Your task to perform on an android device: change the clock style Image 0: 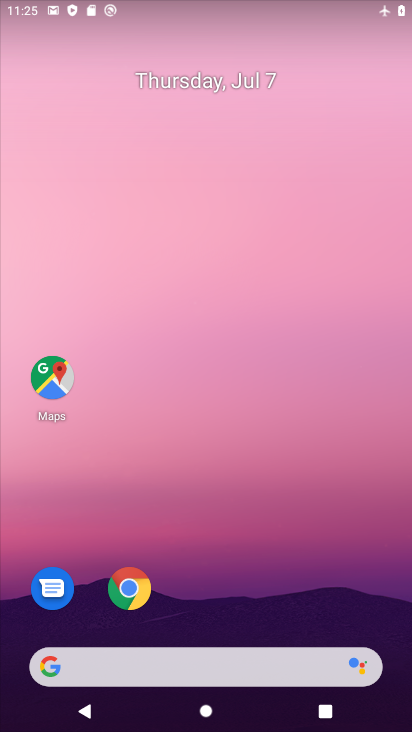
Step 0: press home button
Your task to perform on an android device: change the clock style Image 1: 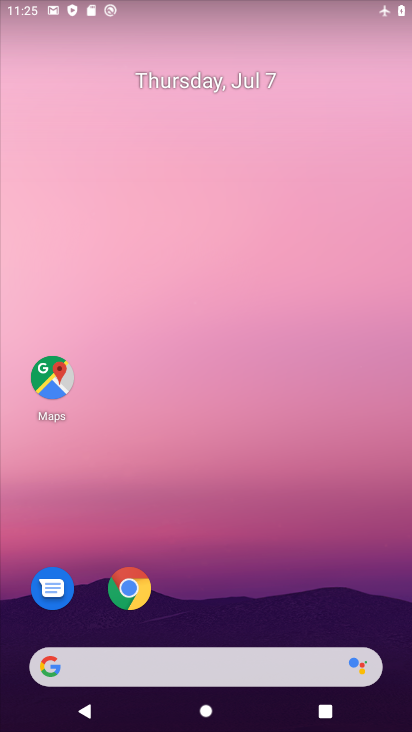
Step 1: drag from (267, 592) to (214, 125)
Your task to perform on an android device: change the clock style Image 2: 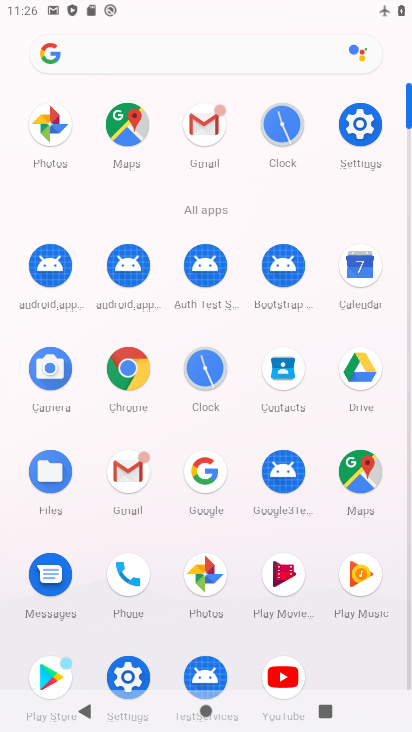
Step 2: click (218, 375)
Your task to perform on an android device: change the clock style Image 3: 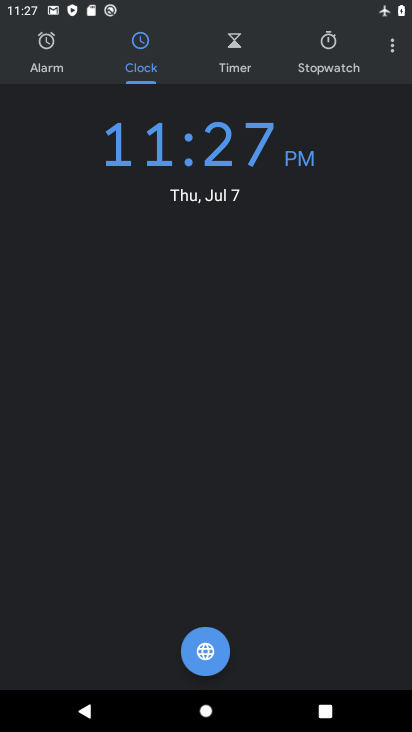
Step 3: click (391, 52)
Your task to perform on an android device: change the clock style Image 4: 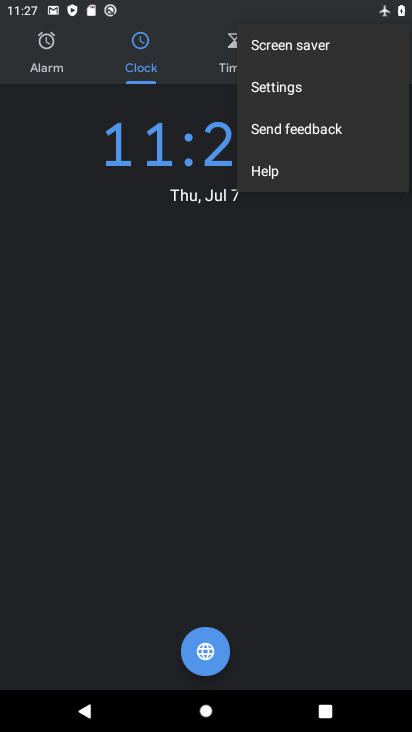
Step 4: click (280, 84)
Your task to perform on an android device: change the clock style Image 5: 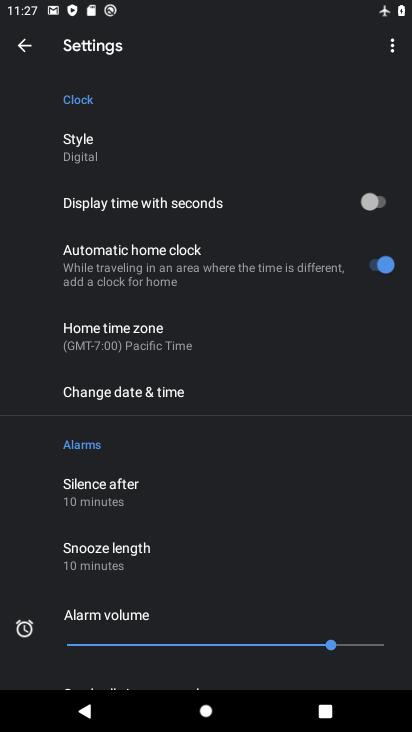
Step 5: click (73, 155)
Your task to perform on an android device: change the clock style Image 6: 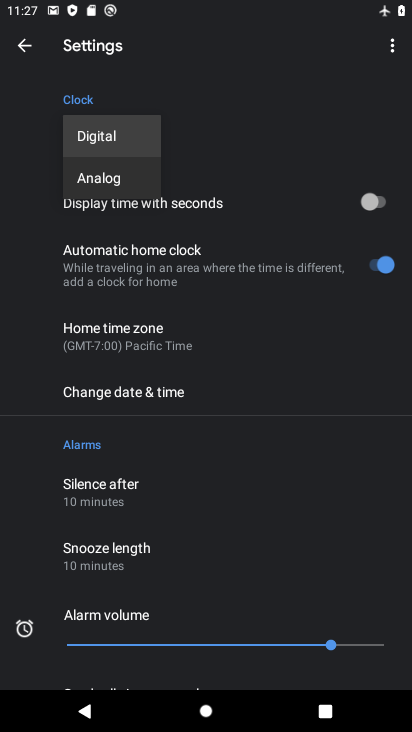
Step 6: click (103, 173)
Your task to perform on an android device: change the clock style Image 7: 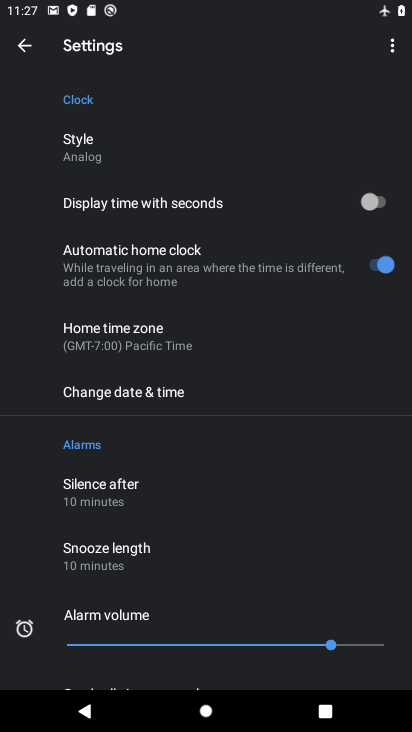
Step 7: task complete